Your task to perform on an android device: turn off smart reply in the gmail app Image 0: 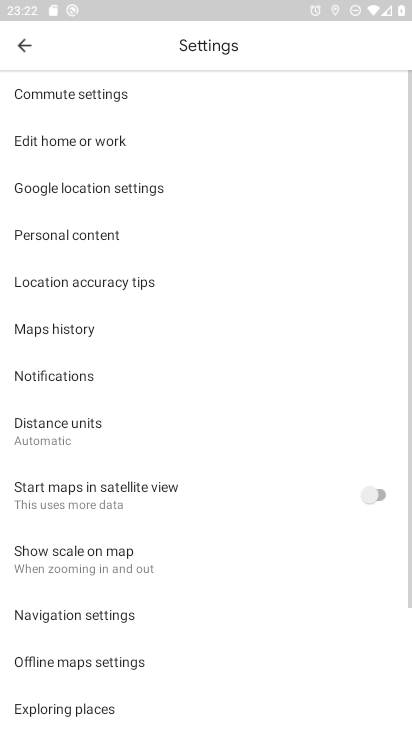
Step 0: press home button
Your task to perform on an android device: turn off smart reply in the gmail app Image 1: 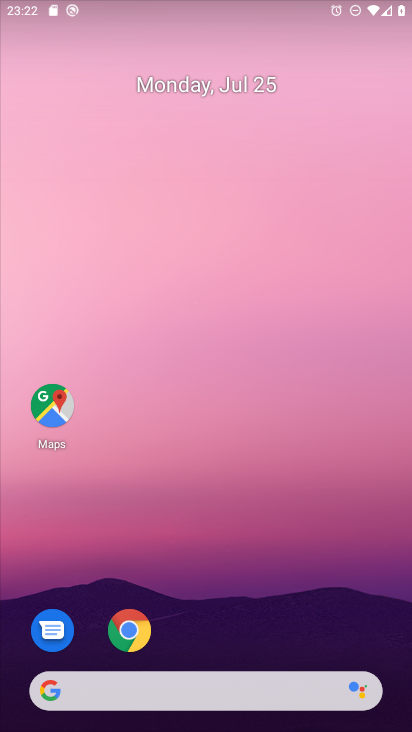
Step 1: drag from (311, 616) to (259, 132)
Your task to perform on an android device: turn off smart reply in the gmail app Image 2: 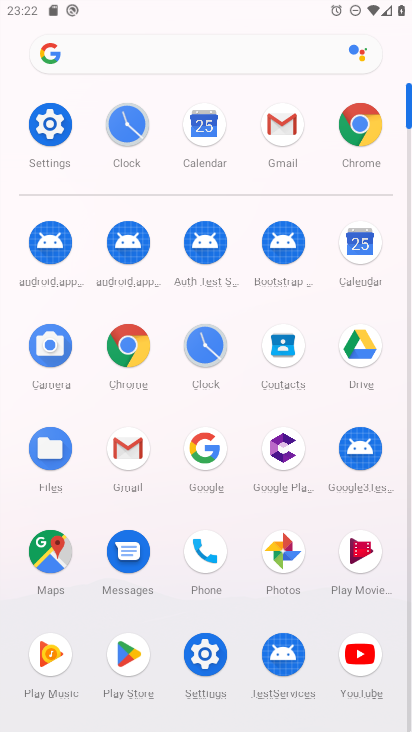
Step 2: click (279, 132)
Your task to perform on an android device: turn off smart reply in the gmail app Image 3: 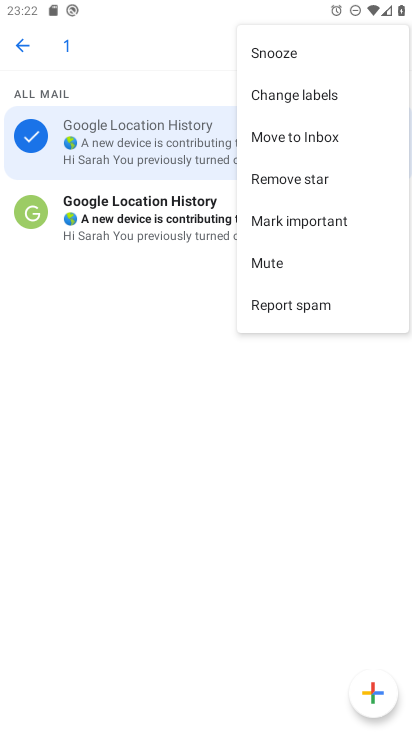
Step 3: click (9, 46)
Your task to perform on an android device: turn off smart reply in the gmail app Image 4: 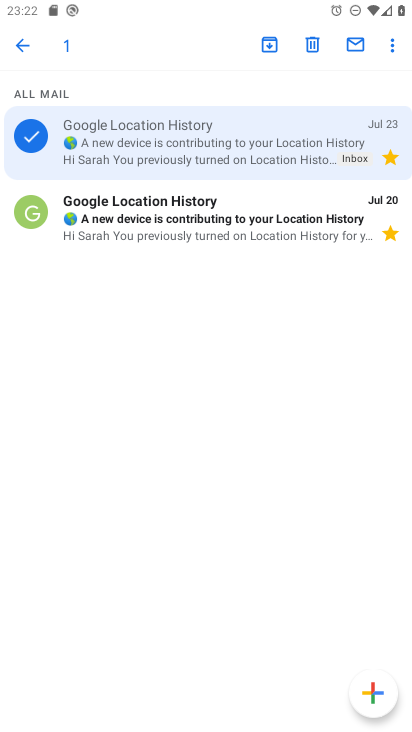
Step 4: click (14, 45)
Your task to perform on an android device: turn off smart reply in the gmail app Image 5: 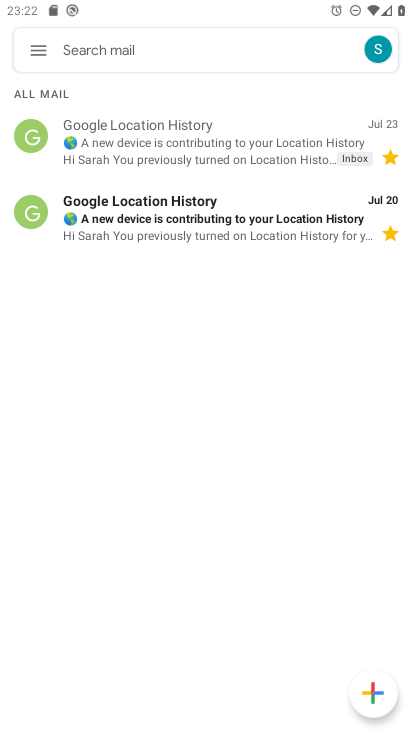
Step 5: click (42, 50)
Your task to perform on an android device: turn off smart reply in the gmail app Image 6: 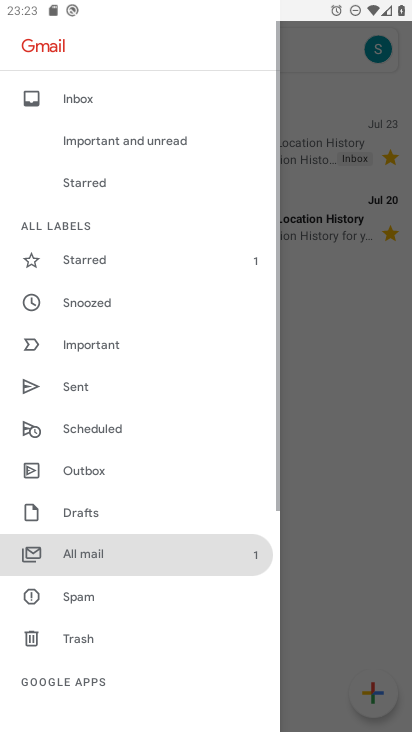
Step 6: drag from (125, 616) to (168, 143)
Your task to perform on an android device: turn off smart reply in the gmail app Image 7: 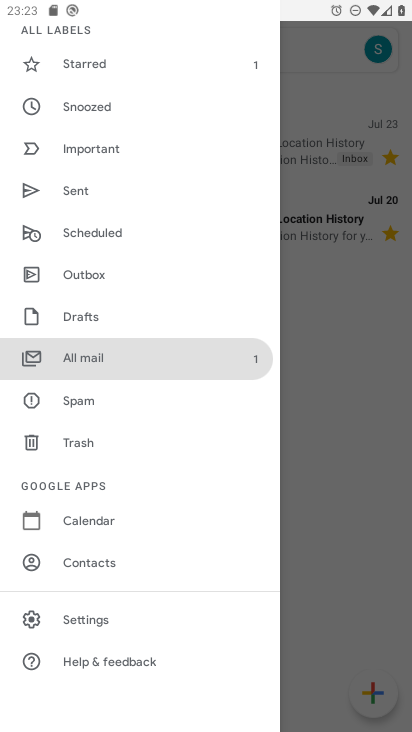
Step 7: click (96, 616)
Your task to perform on an android device: turn off smart reply in the gmail app Image 8: 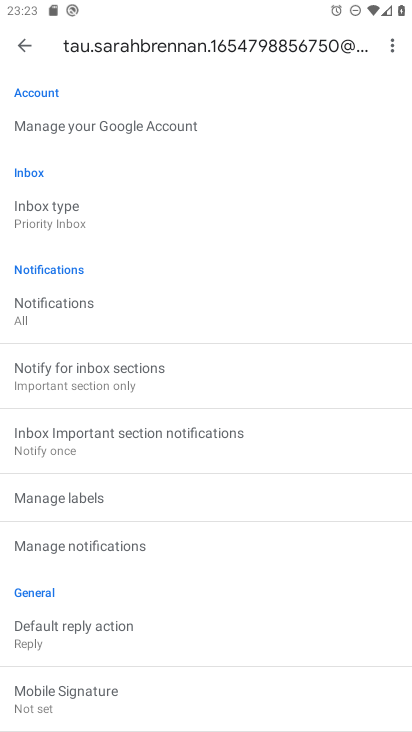
Step 8: drag from (311, 614) to (308, 177)
Your task to perform on an android device: turn off smart reply in the gmail app Image 9: 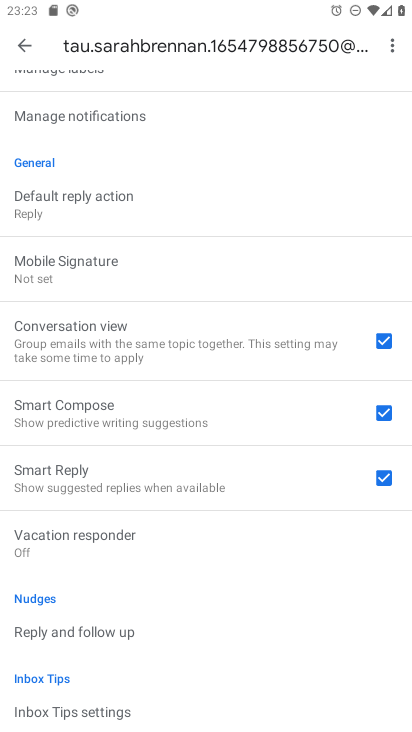
Step 9: click (382, 475)
Your task to perform on an android device: turn off smart reply in the gmail app Image 10: 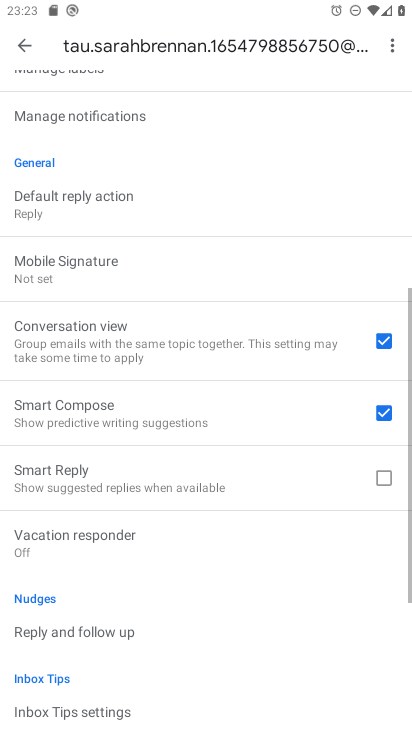
Step 10: task complete